Your task to perform on an android device: Open Amazon Image 0: 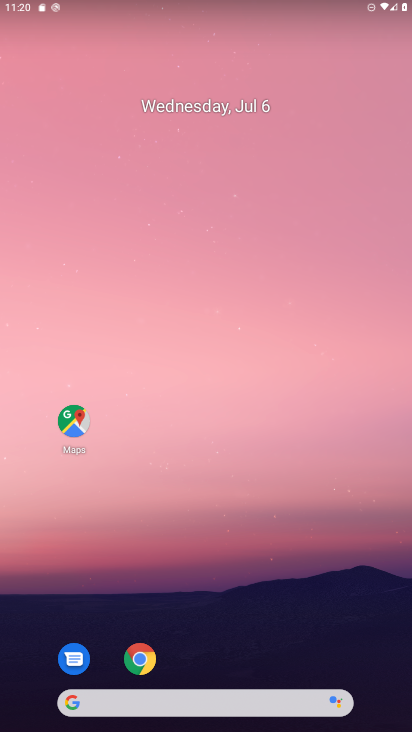
Step 0: click (141, 650)
Your task to perform on an android device: Open Amazon Image 1: 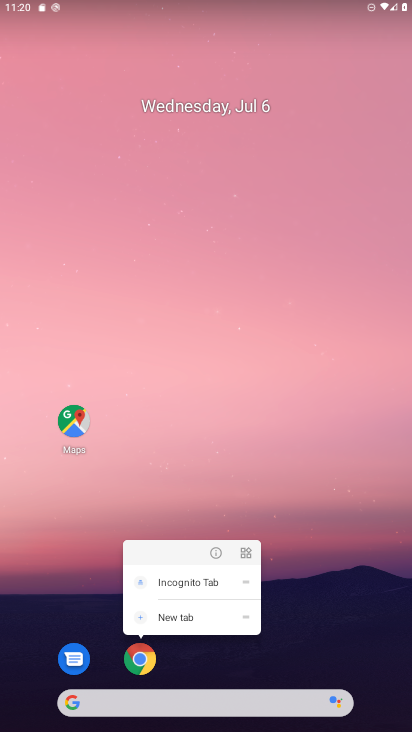
Step 1: click (147, 661)
Your task to perform on an android device: Open Amazon Image 2: 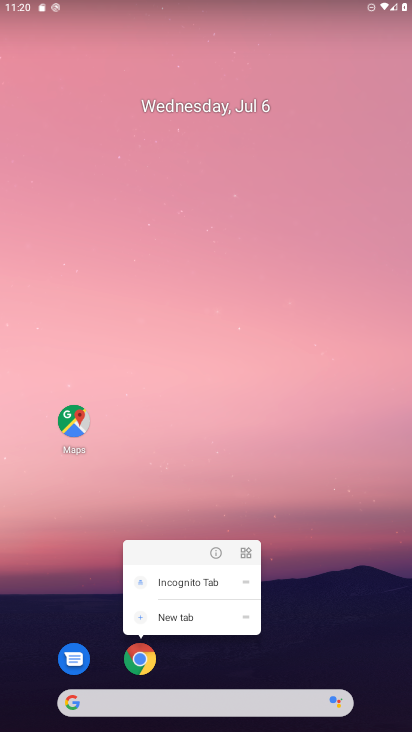
Step 2: click (147, 661)
Your task to perform on an android device: Open Amazon Image 3: 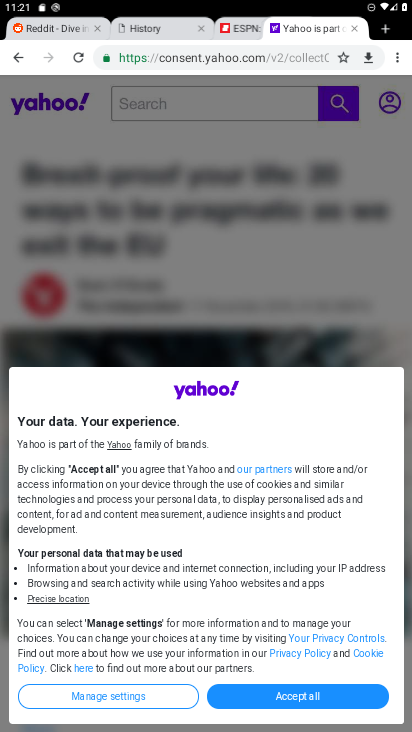
Step 3: click (382, 28)
Your task to perform on an android device: Open Amazon Image 4: 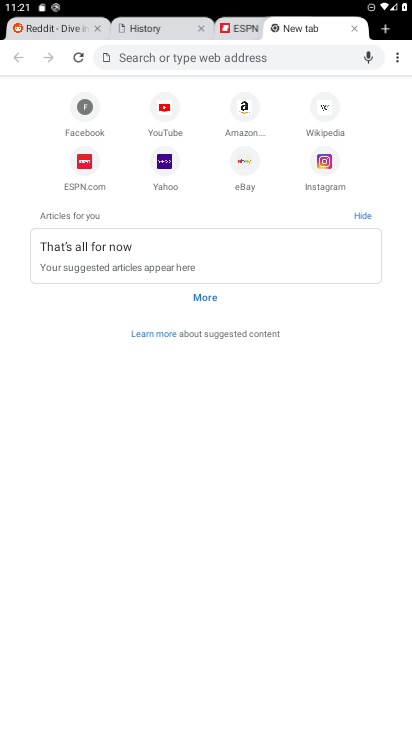
Step 4: click (243, 109)
Your task to perform on an android device: Open Amazon Image 5: 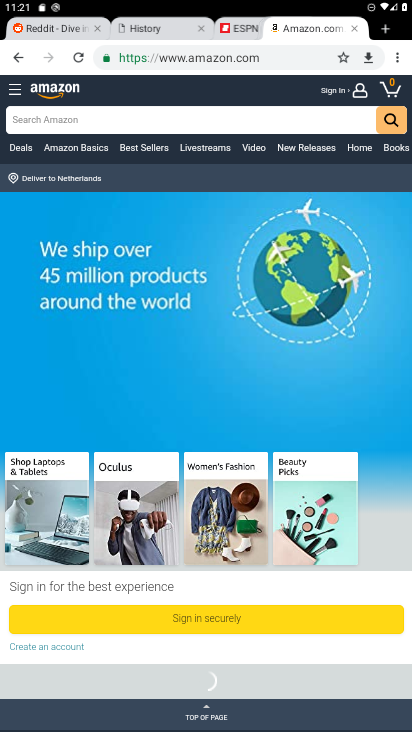
Step 5: task complete